Your task to perform on an android device: Open Amazon Image 0: 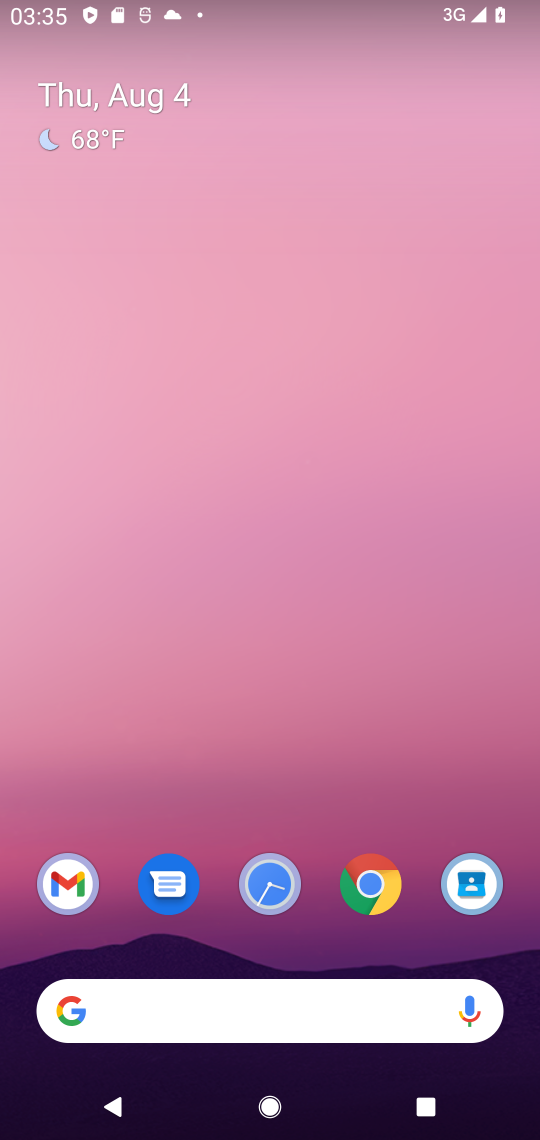
Step 0: press home button
Your task to perform on an android device: Open Amazon Image 1: 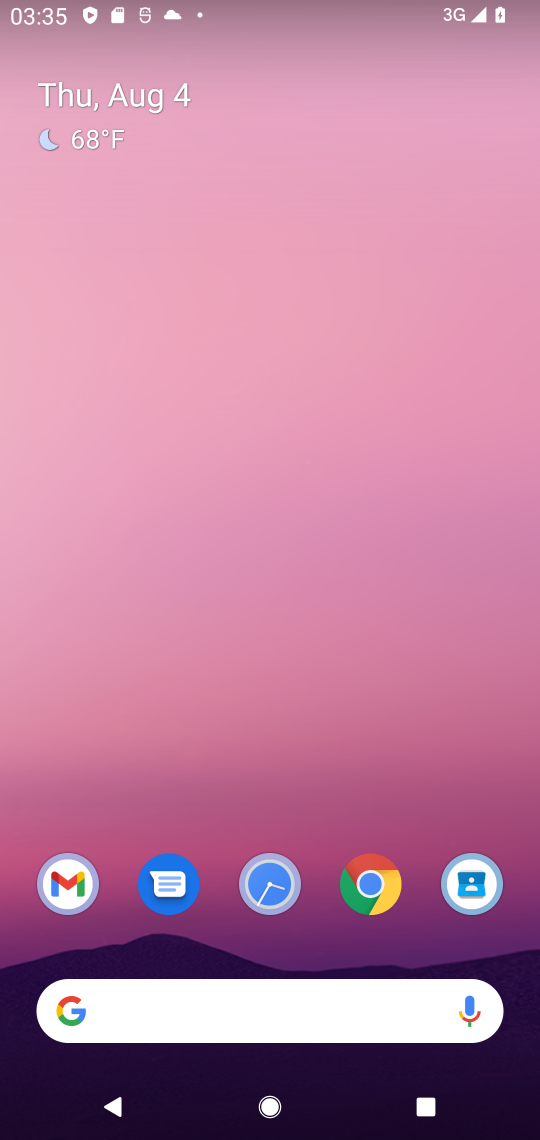
Step 1: drag from (311, 923) to (317, 300)
Your task to perform on an android device: Open Amazon Image 2: 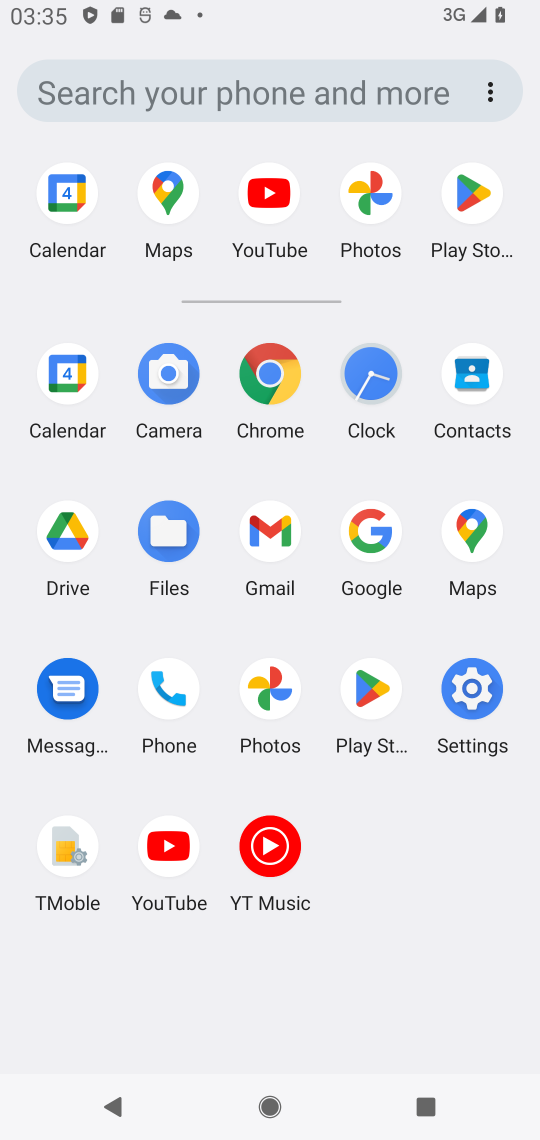
Step 2: click (271, 383)
Your task to perform on an android device: Open Amazon Image 3: 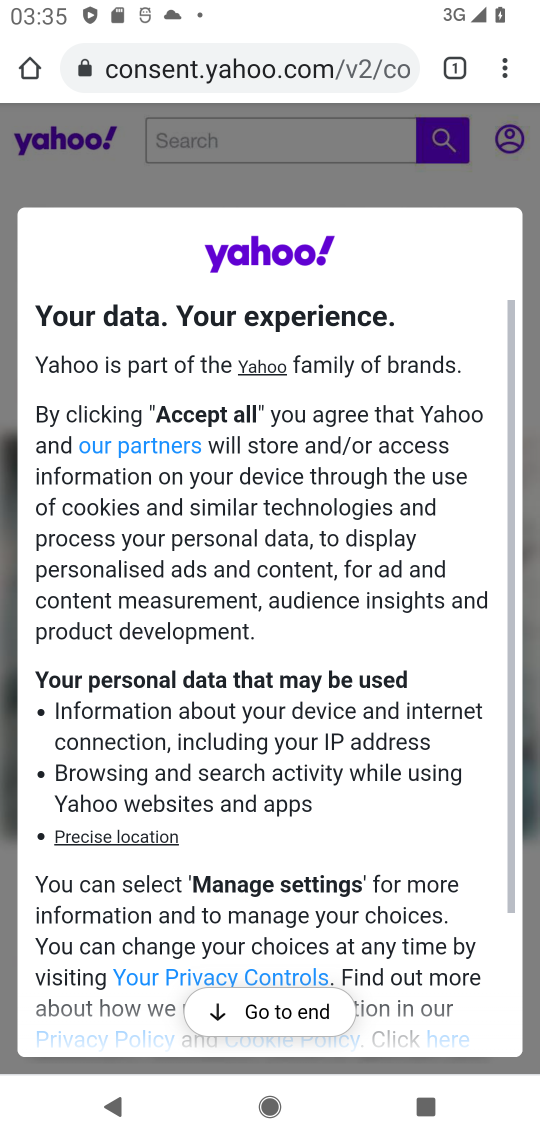
Step 3: click (329, 76)
Your task to perform on an android device: Open Amazon Image 4: 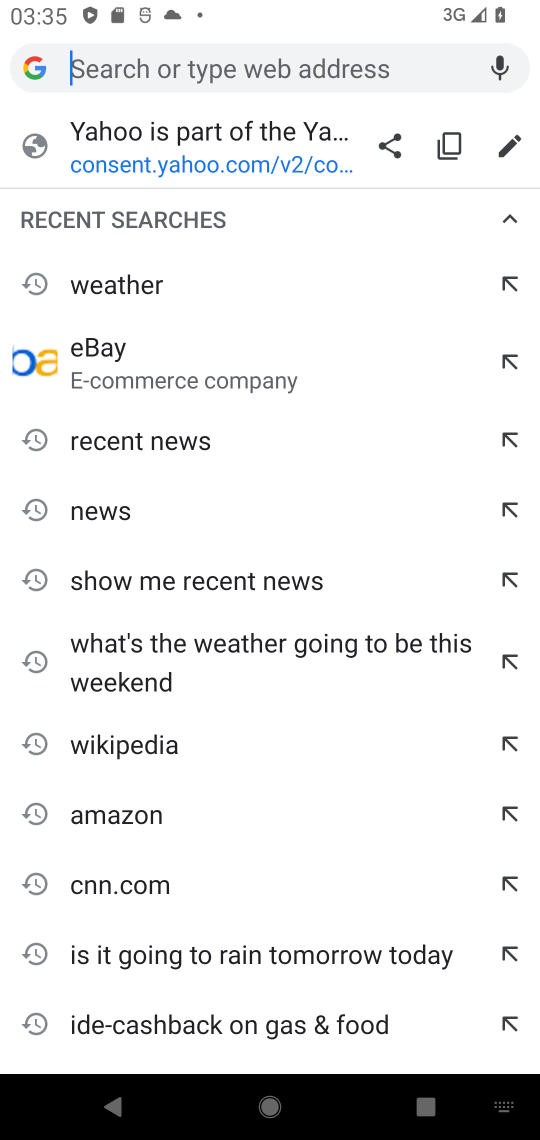
Step 4: type "amazon"
Your task to perform on an android device: Open Amazon Image 5: 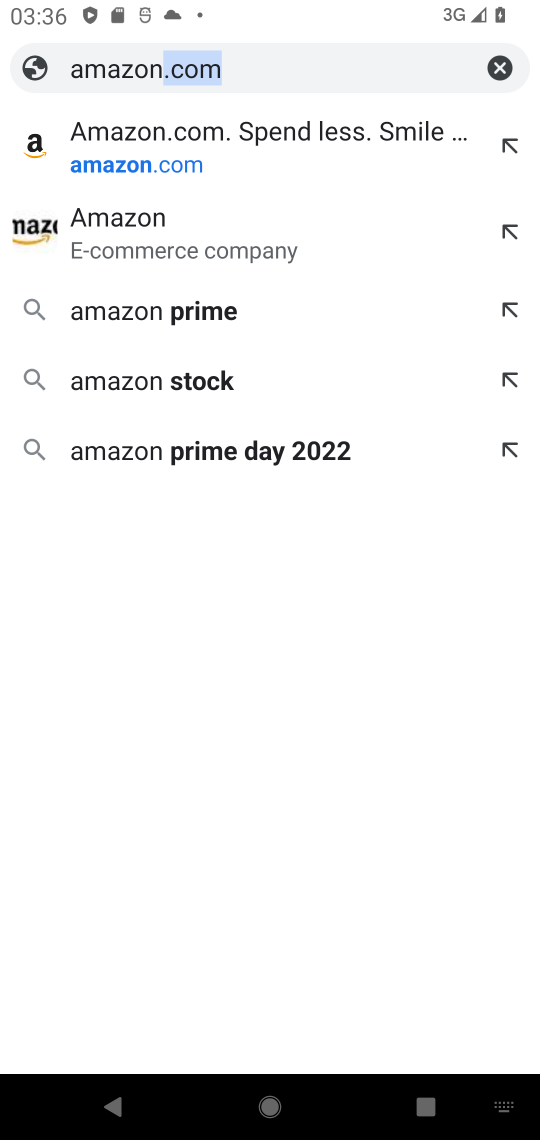
Step 5: click (289, 321)
Your task to perform on an android device: Open Amazon Image 6: 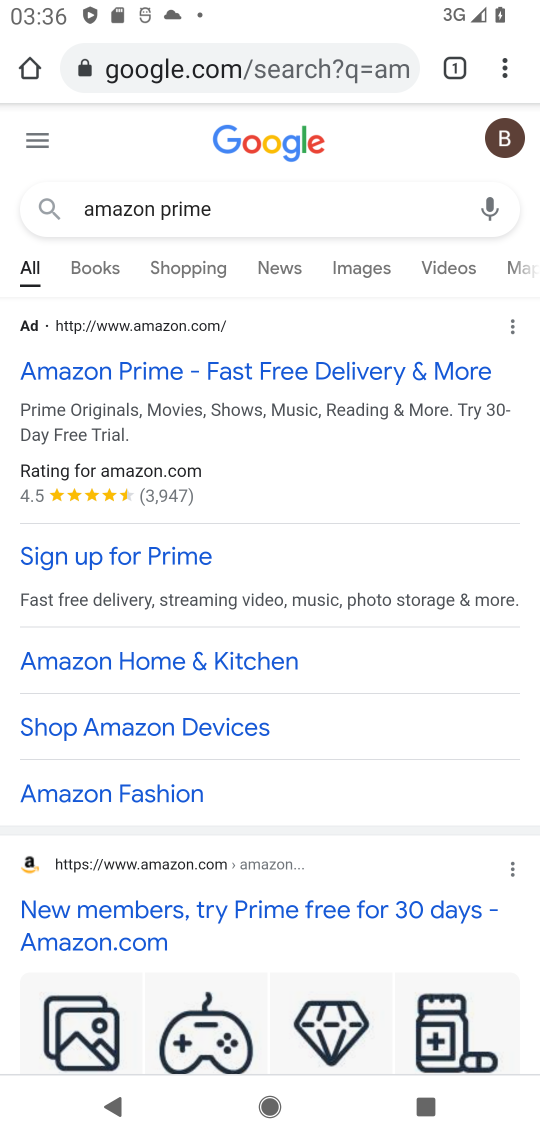
Step 6: task complete